Your task to perform on an android device: Play the new Ed Sheeran video on YouTube Image 0: 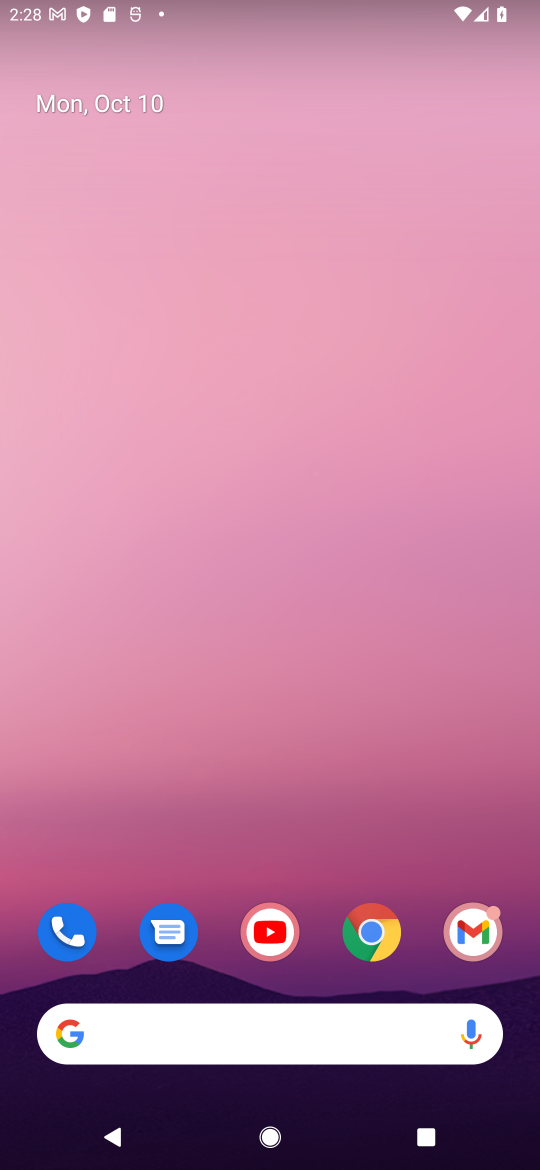
Step 0: click (214, 1021)
Your task to perform on an android device: Play the new Ed Sheeran video on YouTube Image 1: 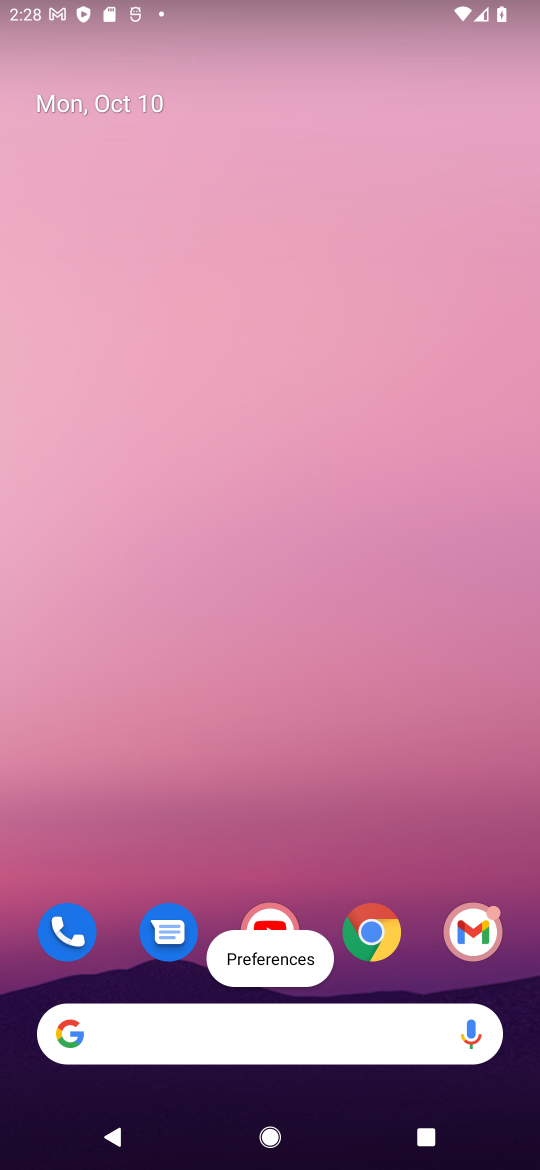
Step 1: click (122, 1027)
Your task to perform on an android device: Play the new Ed Sheeran video on YouTube Image 2: 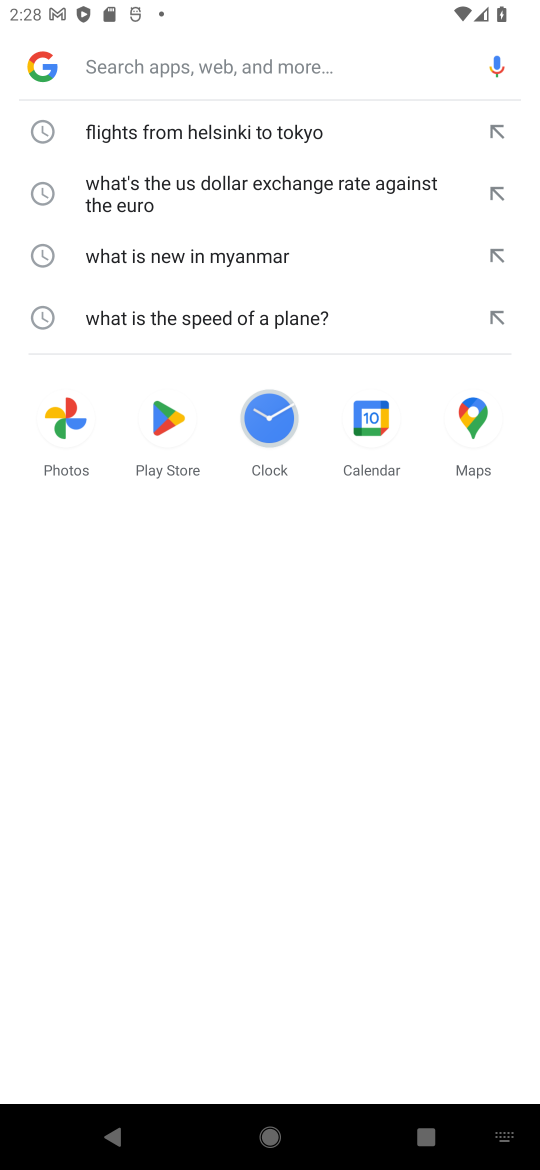
Step 2: press home button
Your task to perform on an android device: Play the new Ed Sheeran video on YouTube Image 3: 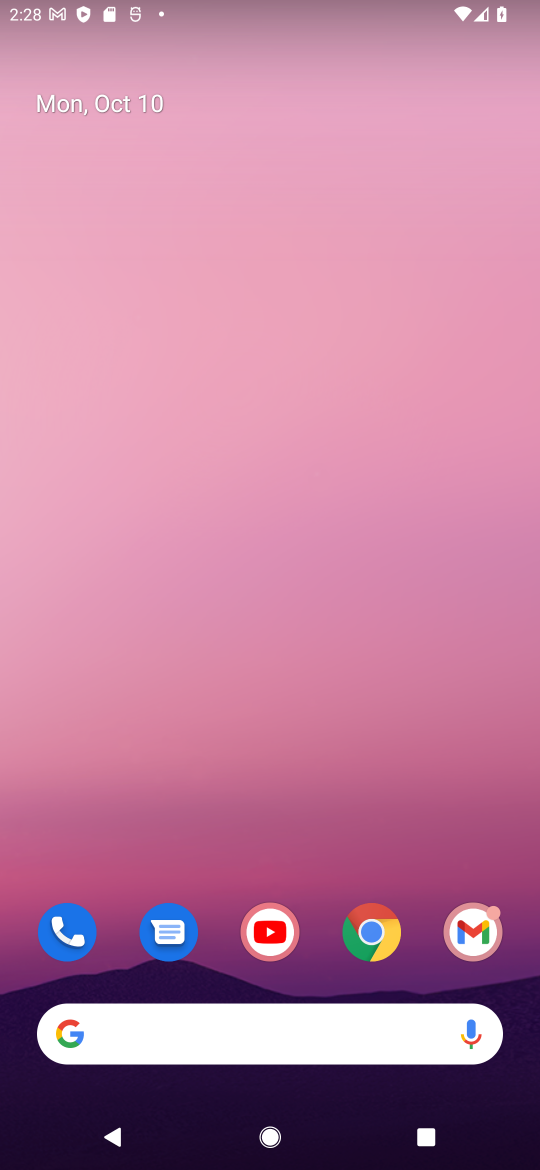
Step 3: drag from (443, 723) to (434, 49)
Your task to perform on an android device: Play the new Ed Sheeran video on YouTube Image 4: 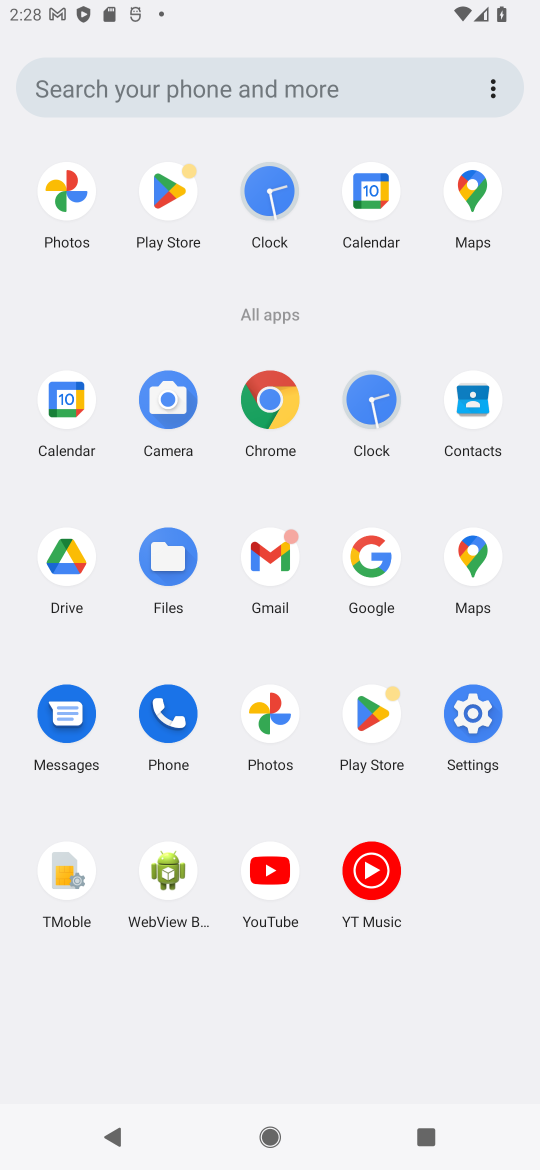
Step 4: click (260, 873)
Your task to perform on an android device: Play the new Ed Sheeran video on YouTube Image 5: 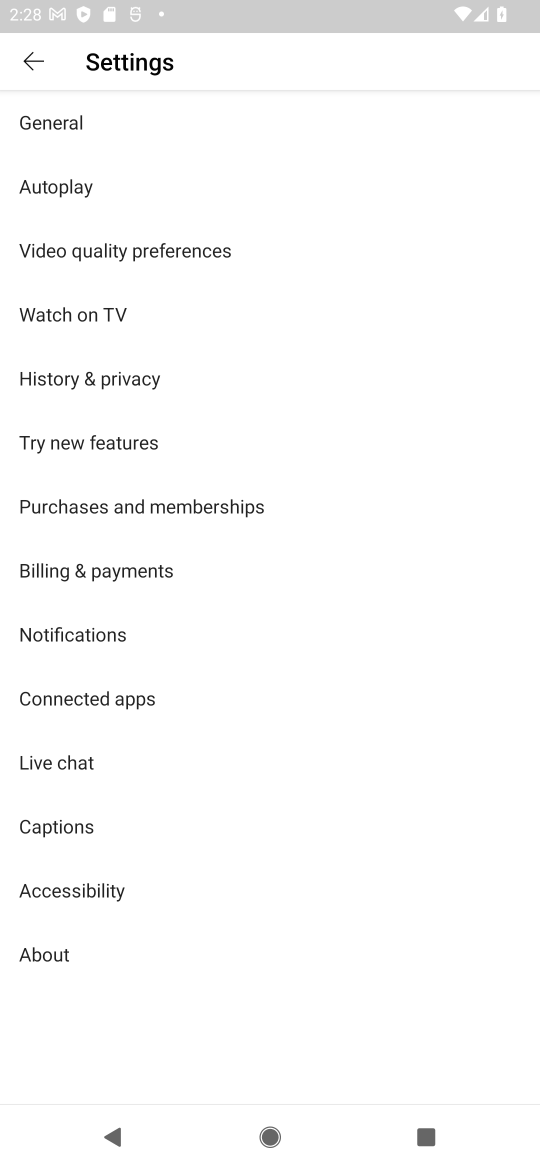
Step 5: press back button
Your task to perform on an android device: Play the new Ed Sheeran video on YouTube Image 6: 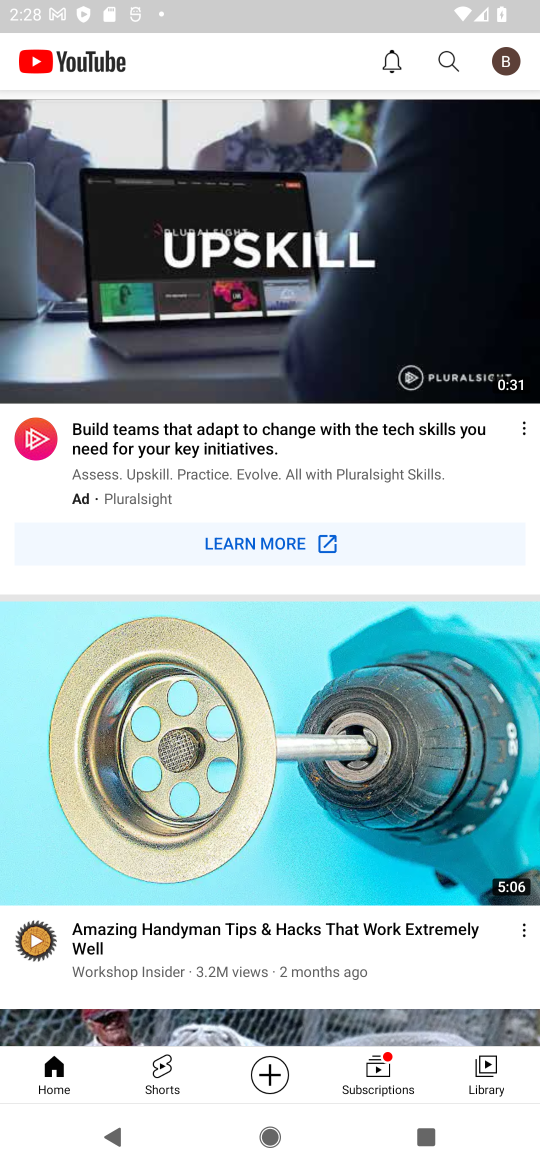
Step 6: click (445, 54)
Your task to perform on an android device: Play the new Ed Sheeran video on YouTube Image 7: 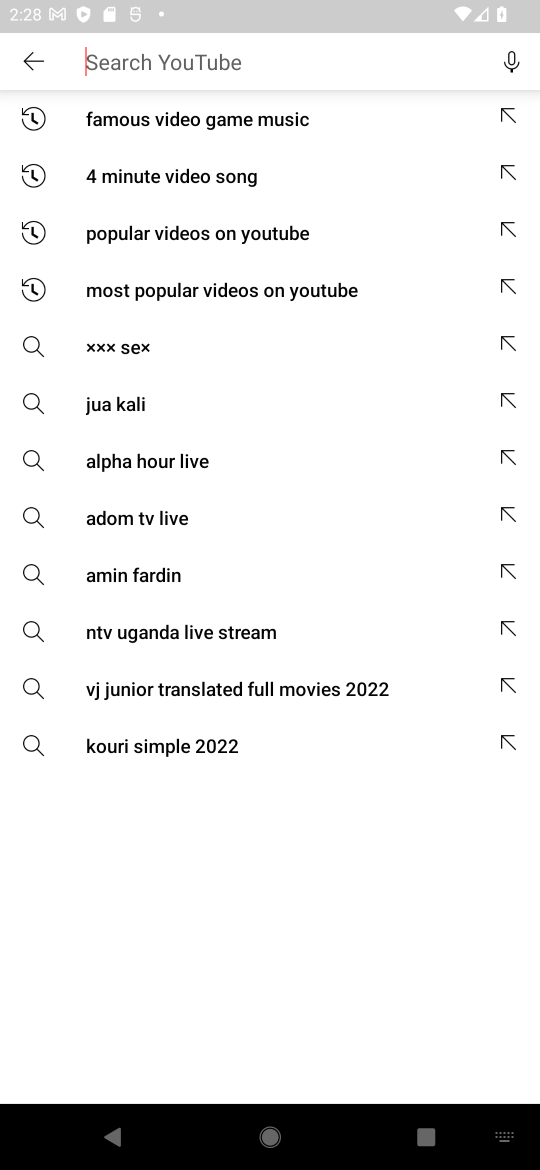
Step 7: type "new Ed Sheeran video "
Your task to perform on an android device: Play the new Ed Sheeran video on YouTube Image 8: 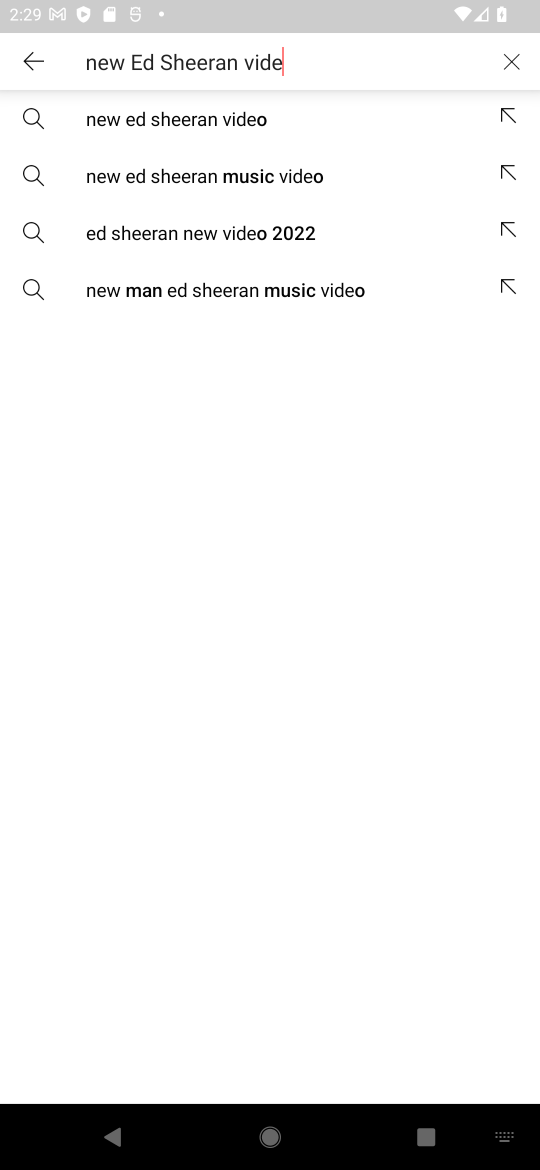
Step 8: press enter
Your task to perform on an android device: Play the new Ed Sheeran video on YouTube Image 9: 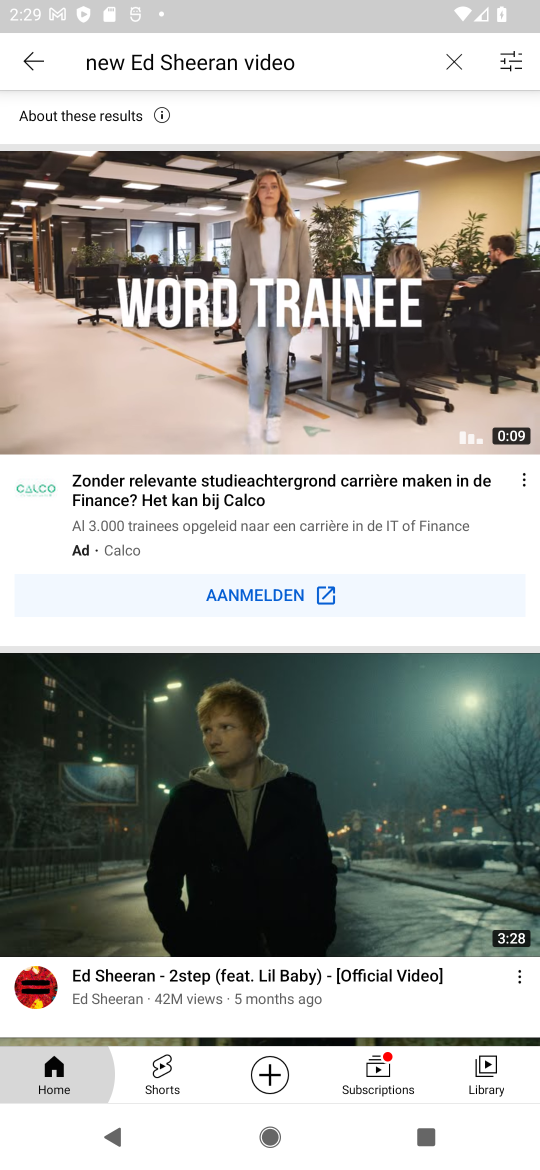
Step 9: click (271, 831)
Your task to perform on an android device: Play the new Ed Sheeran video on YouTube Image 10: 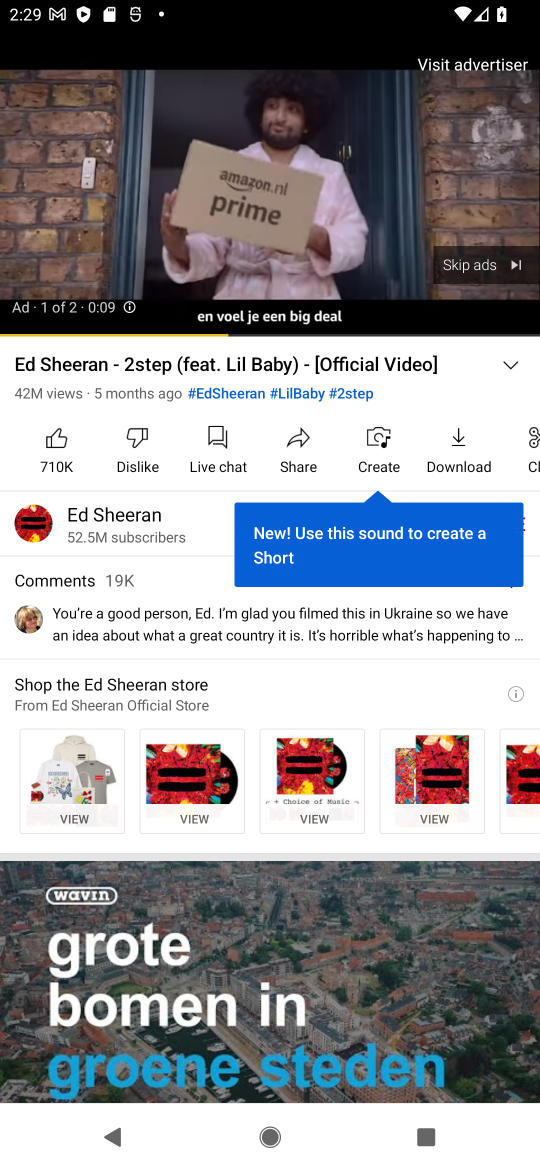
Step 10: click (480, 272)
Your task to perform on an android device: Play the new Ed Sheeran video on YouTube Image 11: 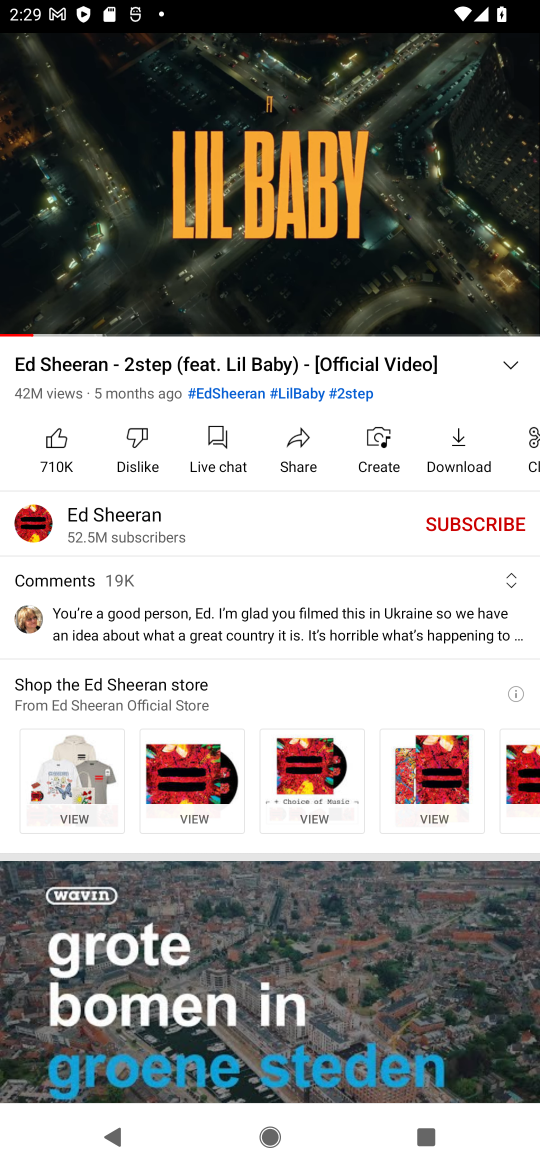
Step 11: task complete